Your task to perform on an android device: Go to settings Image 0: 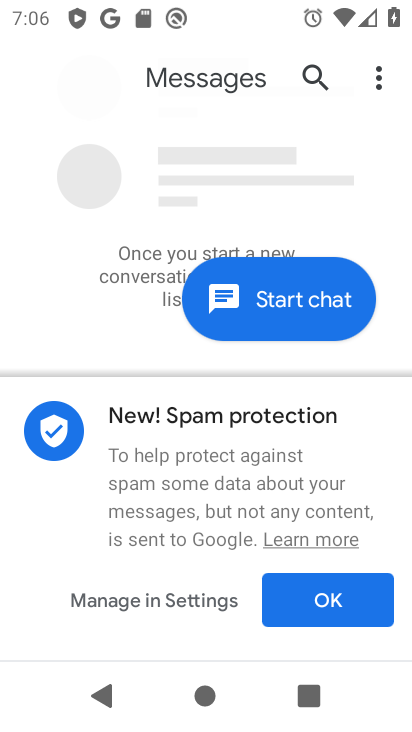
Step 0: drag from (316, 6) to (343, 717)
Your task to perform on an android device: Go to settings Image 1: 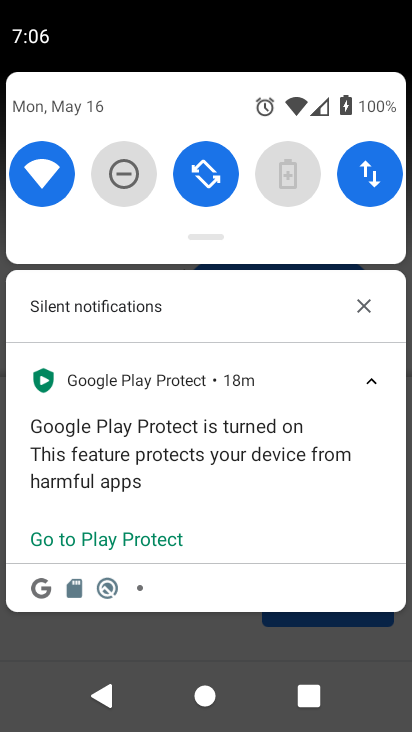
Step 1: drag from (212, 235) to (76, 695)
Your task to perform on an android device: Go to settings Image 2: 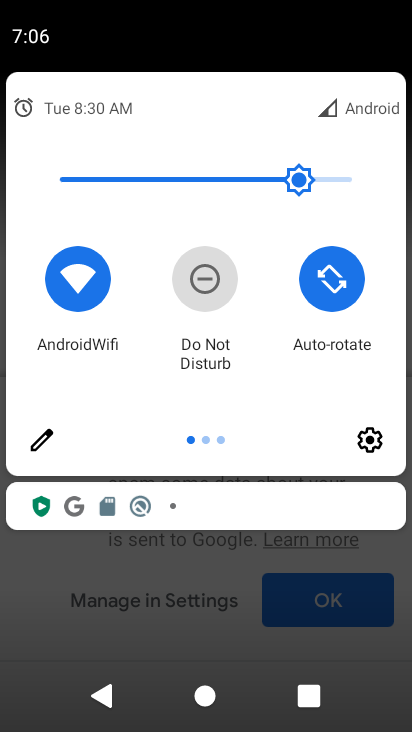
Step 2: click (367, 454)
Your task to perform on an android device: Go to settings Image 3: 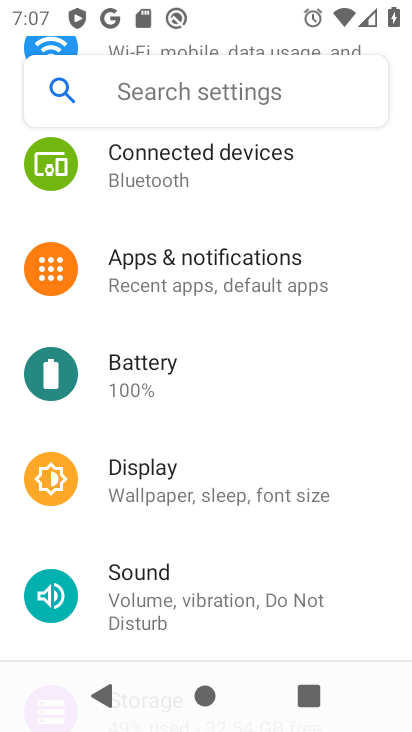
Step 3: task complete